Your task to perform on an android device: see sites visited before in the chrome app Image 0: 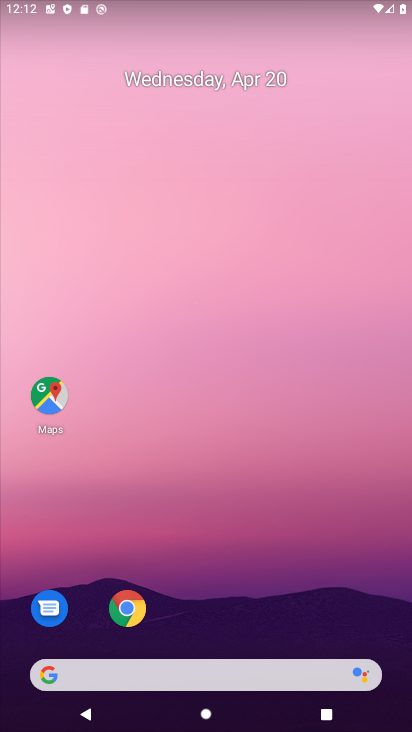
Step 0: click (127, 618)
Your task to perform on an android device: see sites visited before in the chrome app Image 1: 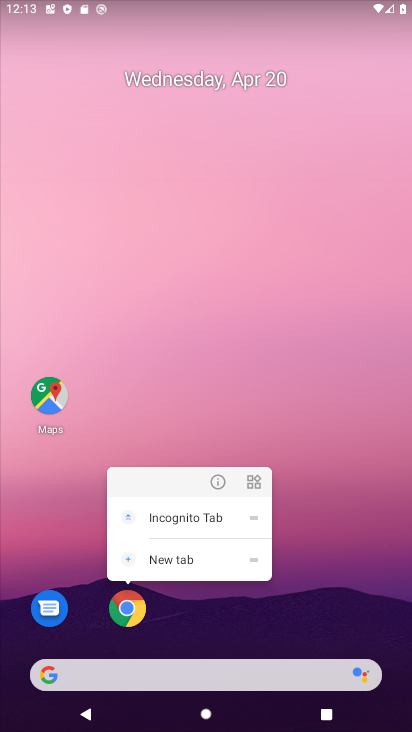
Step 1: click (128, 607)
Your task to perform on an android device: see sites visited before in the chrome app Image 2: 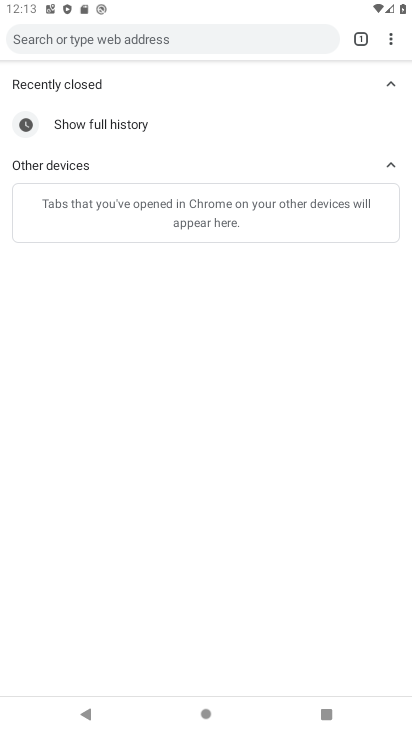
Step 2: click (386, 43)
Your task to perform on an android device: see sites visited before in the chrome app Image 3: 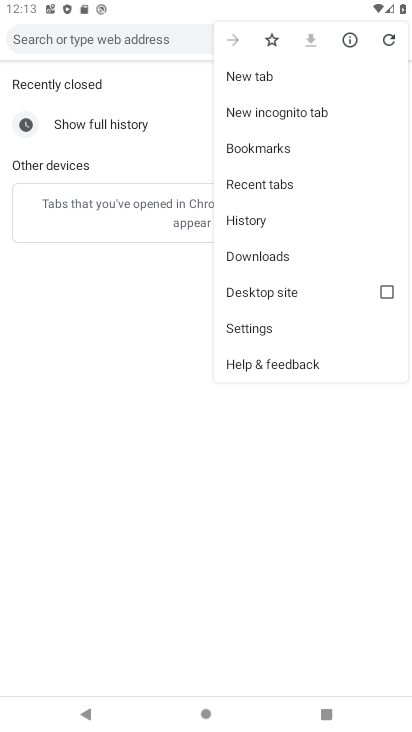
Step 3: click (274, 329)
Your task to perform on an android device: see sites visited before in the chrome app Image 4: 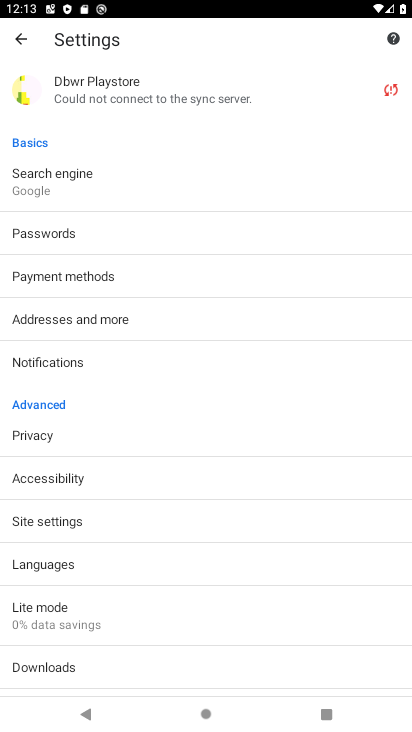
Step 4: press back button
Your task to perform on an android device: see sites visited before in the chrome app Image 5: 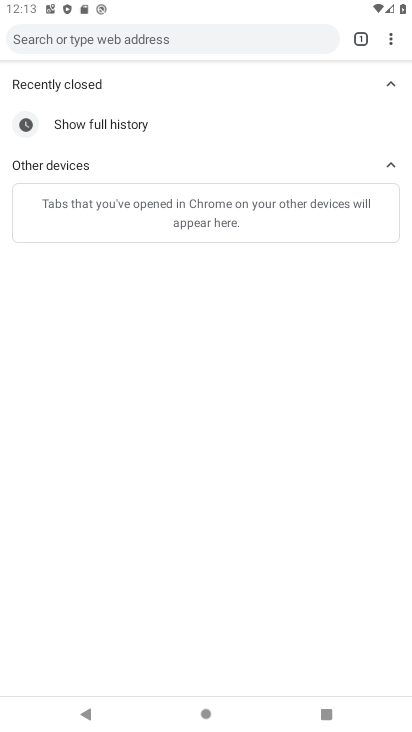
Step 5: click (391, 39)
Your task to perform on an android device: see sites visited before in the chrome app Image 6: 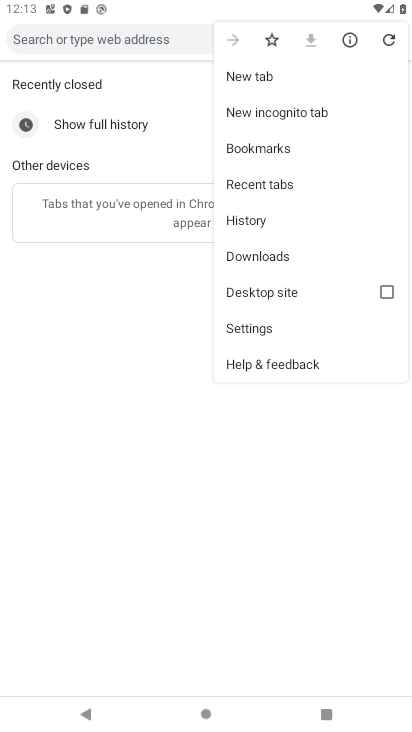
Step 6: click (275, 184)
Your task to perform on an android device: see sites visited before in the chrome app Image 7: 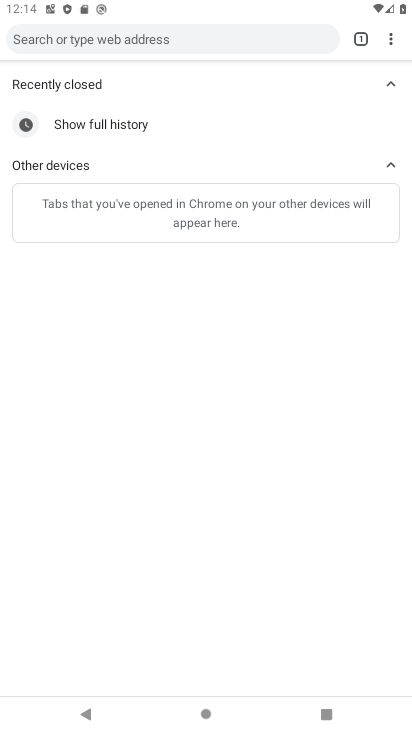
Step 7: task complete